Your task to perform on an android device: Do I have any events this weekend? Image 0: 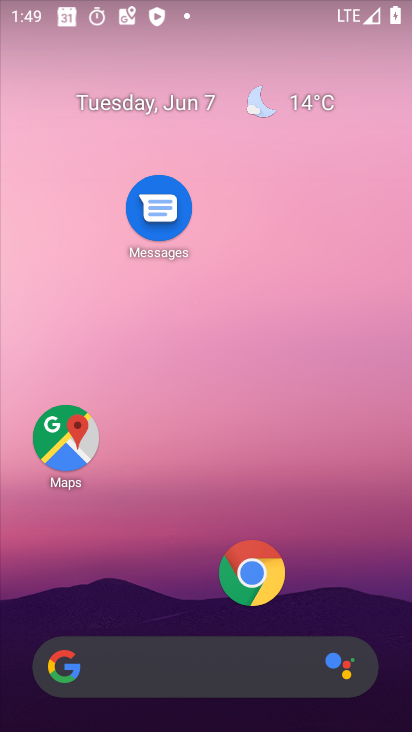
Step 0: click (261, 31)
Your task to perform on an android device: Do I have any events this weekend? Image 1: 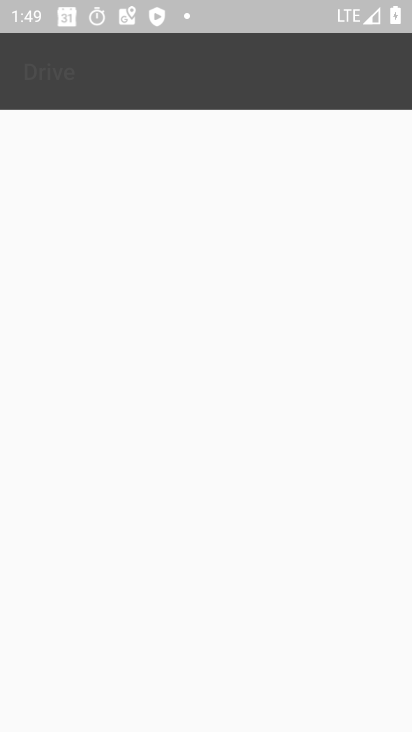
Step 1: press home button
Your task to perform on an android device: Do I have any events this weekend? Image 2: 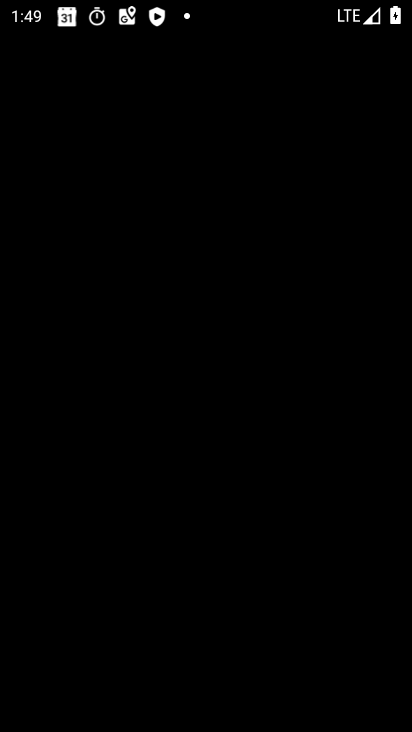
Step 2: press home button
Your task to perform on an android device: Do I have any events this weekend? Image 3: 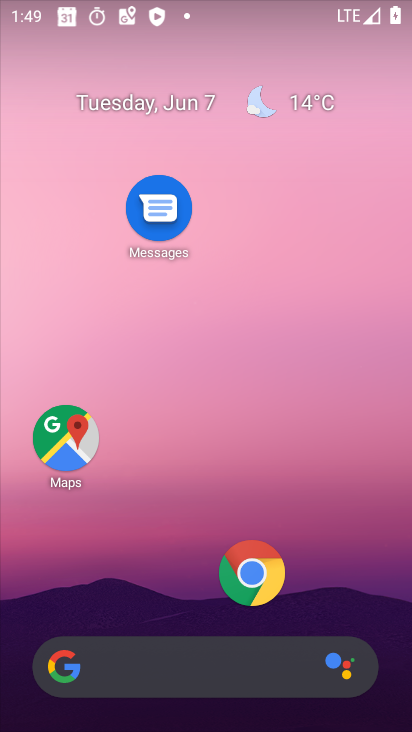
Step 3: drag from (201, 609) to (271, 5)
Your task to perform on an android device: Do I have any events this weekend? Image 4: 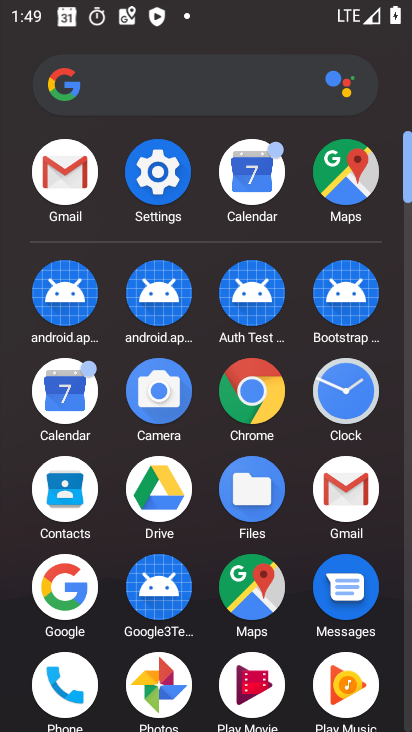
Step 4: click (62, 386)
Your task to perform on an android device: Do I have any events this weekend? Image 5: 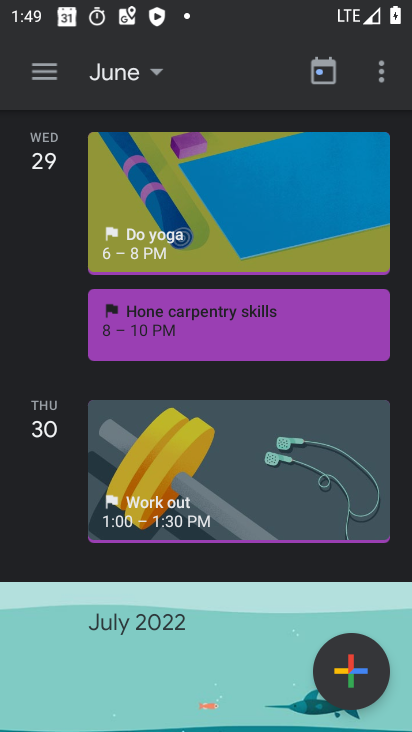
Step 5: click (157, 68)
Your task to perform on an android device: Do I have any events this weekend? Image 6: 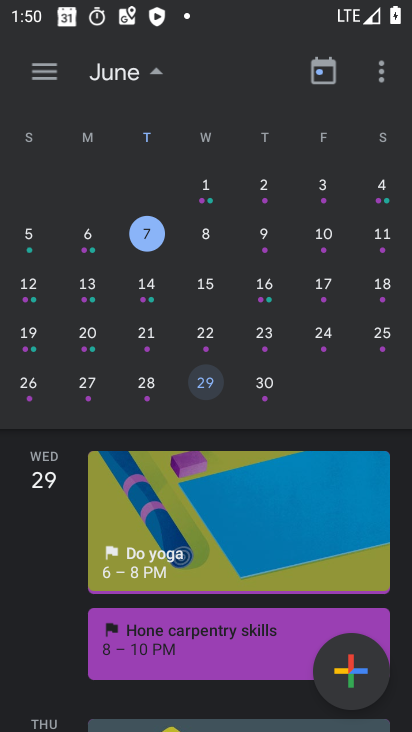
Step 6: click (152, 228)
Your task to perform on an android device: Do I have any events this weekend? Image 7: 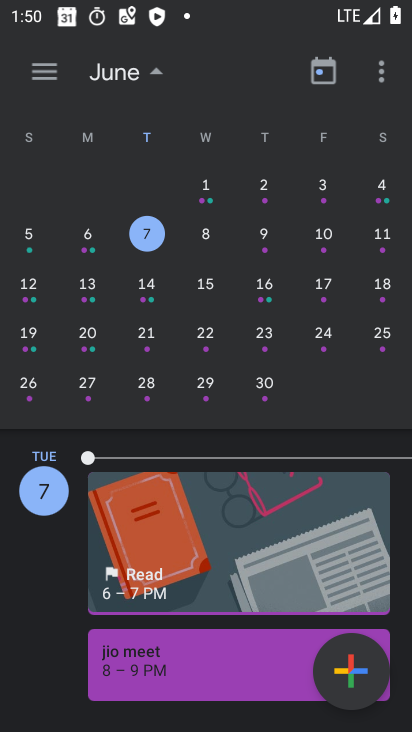
Step 7: click (154, 67)
Your task to perform on an android device: Do I have any events this weekend? Image 8: 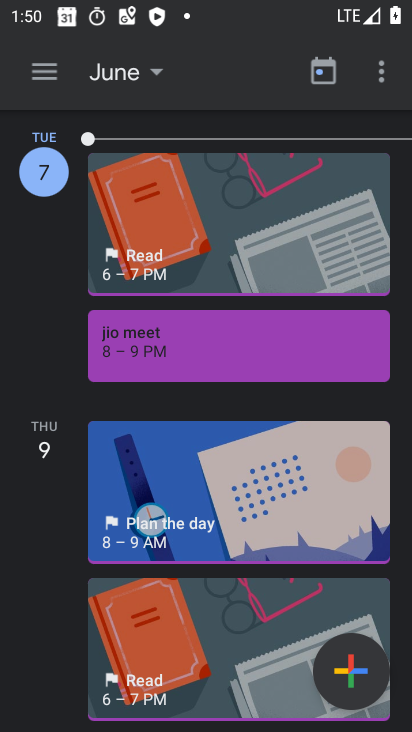
Step 8: task complete